Your task to perform on an android device: delete browsing data in the chrome app Image 0: 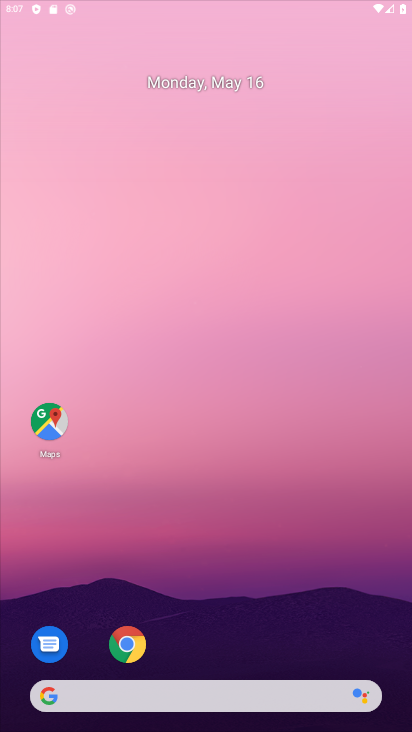
Step 0: click (237, 107)
Your task to perform on an android device: delete browsing data in the chrome app Image 1: 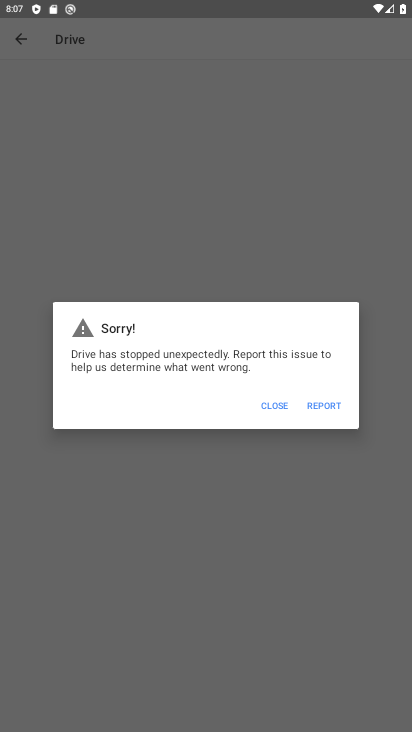
Step 1: press home button
Your task to perform on an android device: delete browsing data in the chrome app Image 2: 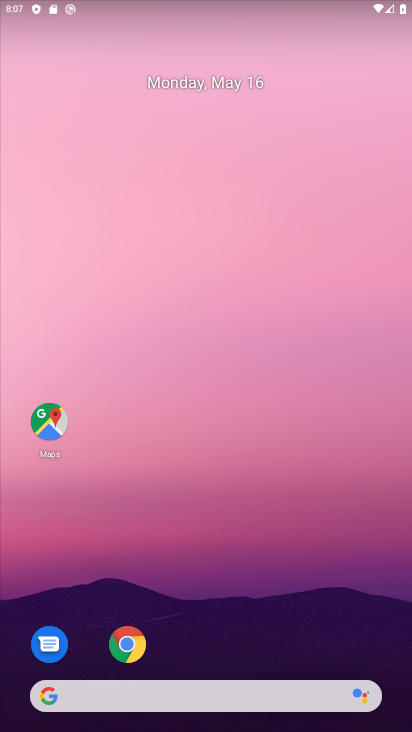
Step 2: drag from (301, 670) to (250, 27)
Your task to perform on an android device: delete browsing data in the chrome app Image 3: 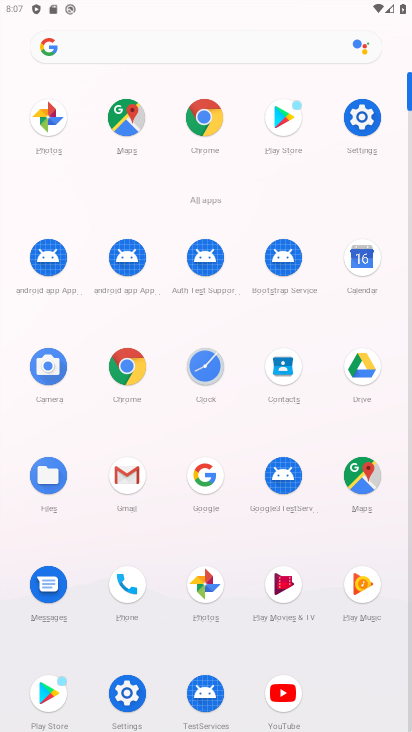
Step 3: click (129, 365)
Your task to perform on an android device: delete browsing data in the chrome app Image 4: 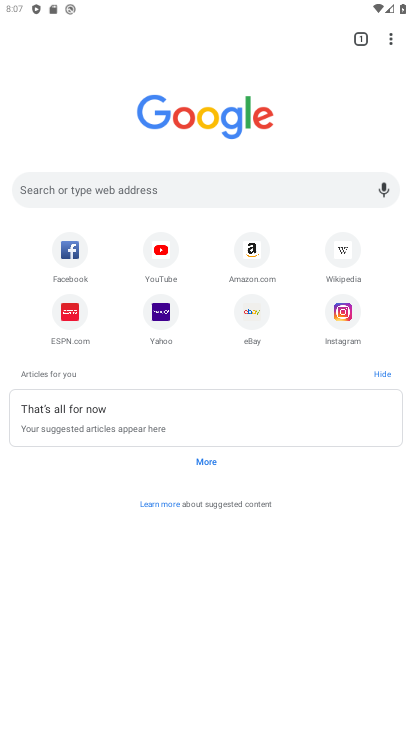
Step 4: drag from (395, 35) to (240, 335)
Your task to perform on an android device: delete browsing data in the chrome app Image 5: 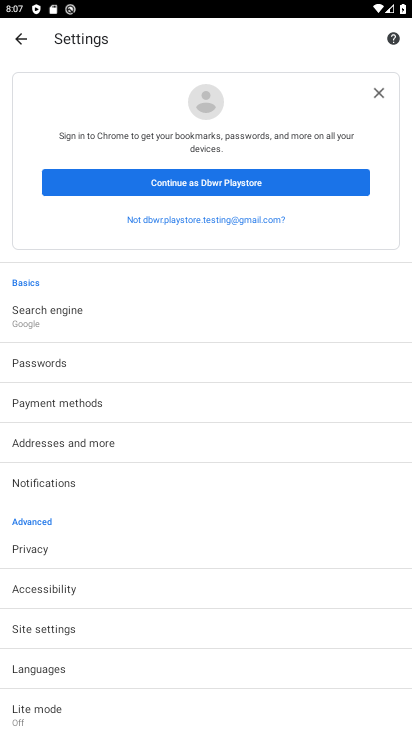
Step 5: click (83, 561)
Your task to perform on an android device: delete browsing data in the chrome app Image 6: 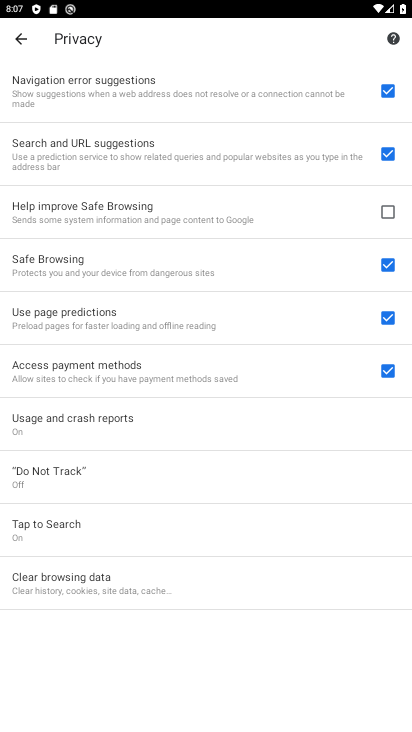
Step 6: drag from (85, 578) to (45, 548)
Your task to perform on an android device: delete browsing data in the chrome app Image 7: 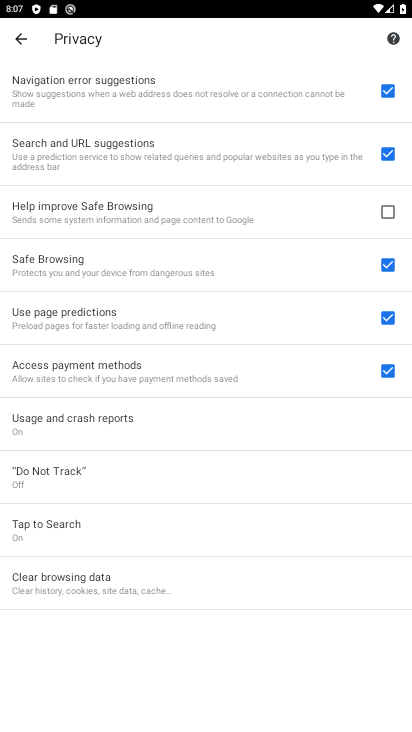
Step 7: click (53, 575)
Your task to perform on an android device: delete browsing data in the chrome app Image 8: 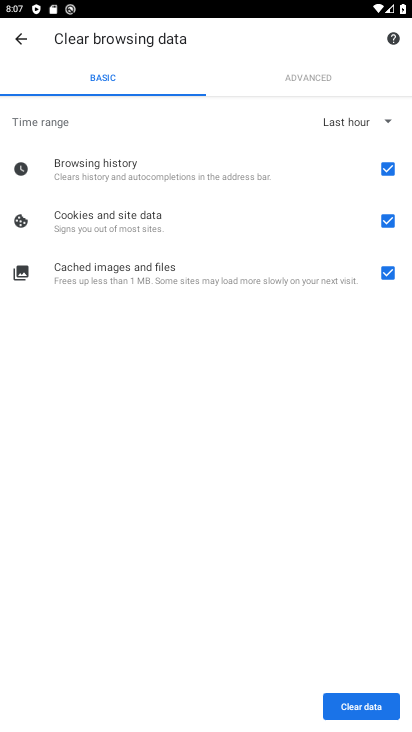
Step 8: click (368, 701)
Your task to perform on an android device: delete browsing data in the chrome app Image 9: 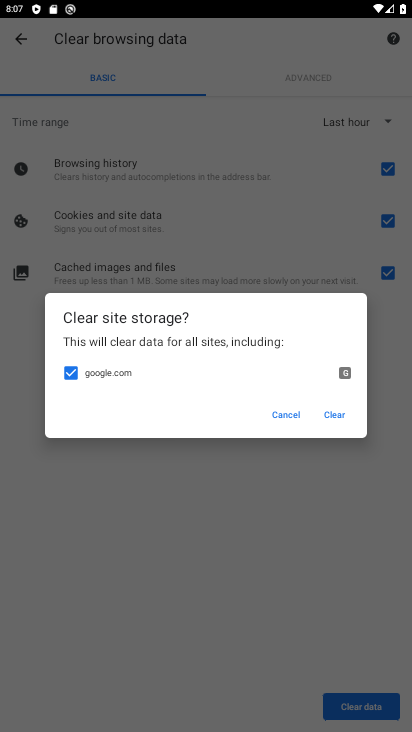
Step 9: click (331, 416)
Your task to perform on an android device: delete browsing data in the chrome app Image 10: 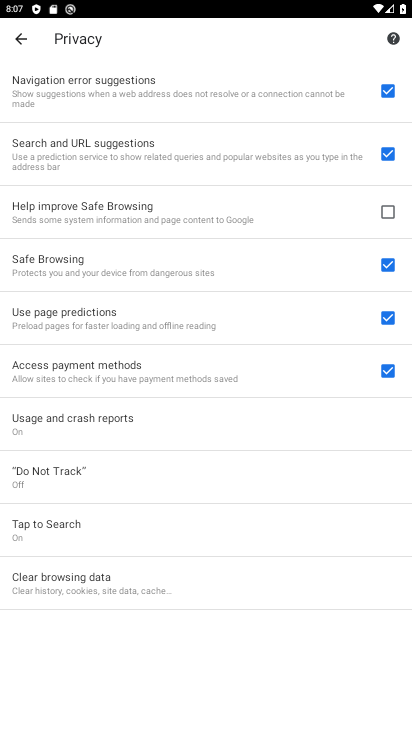
Step 10: task complete